Your task to perform on an android device: check out phone information Image 0: 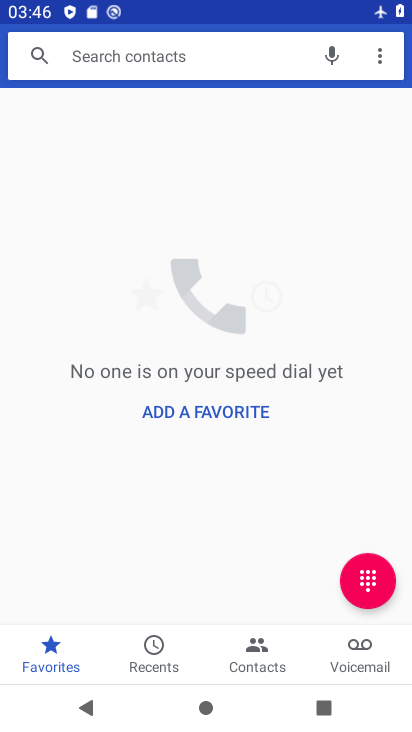
Step 0: press home button
Your task to perform on an android device: check out phone information Image 1: 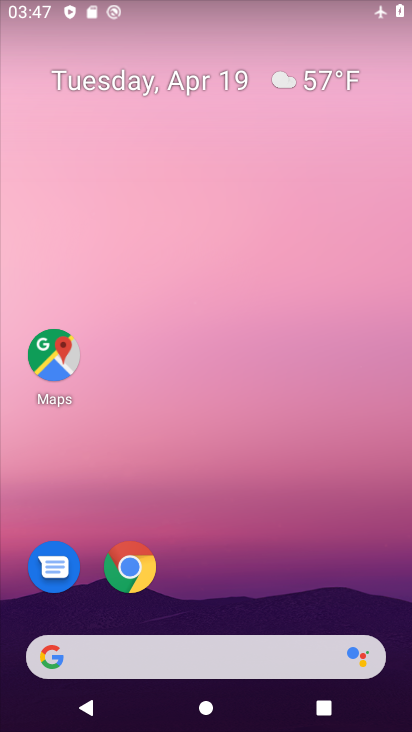
Step 1: drag from (359, 595) to (355, 217)
Your task to perform on an android device: check out phone information Image 2: 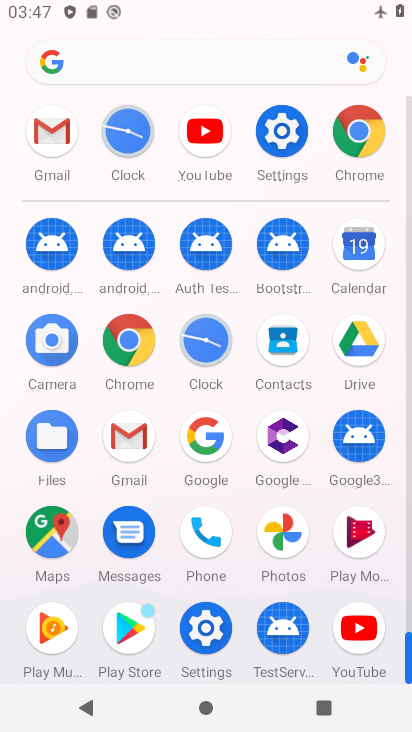
Step 2: click (209, 540)
Your task to perform on an android device: check out phone information Image 3: 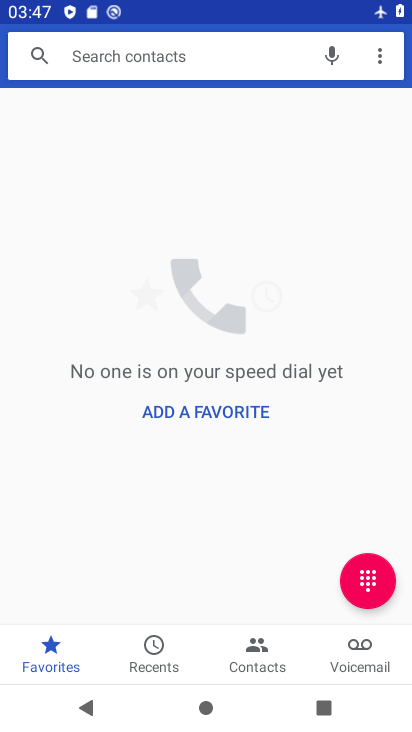
Step 3: click (148, 643)
Your task to perform on an android device: check out phone information Image 4: 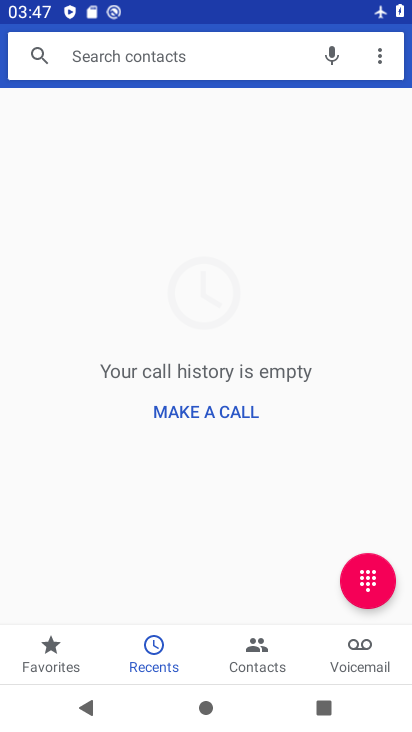
Step 4: task complete